Your task to perform on an android device: add a label to a message in the gmail app Image 0: 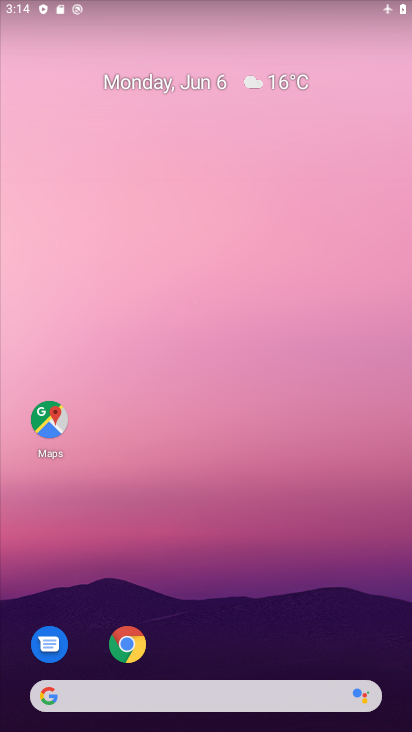
Step 0: drag from (234, 631) to (253, 250)
Your task to perform on an android device: add a label to a message in the gmail app Image 1: 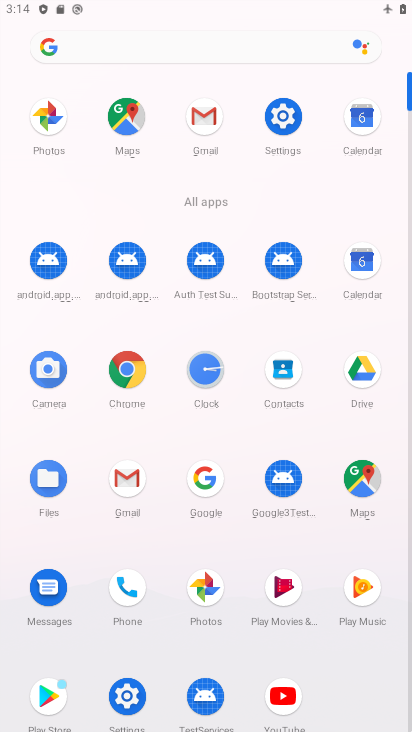
Step 1: click (130, 493)
Your task to perform on an android device: add a label to a message in the gmail app Image 2: 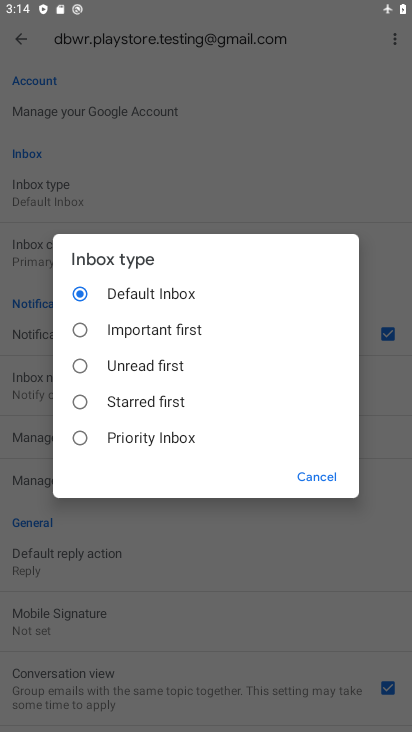
Step 2: click (256, 605)
Your task to perform on an android device: add a label to a message in the gmail app Image 3: 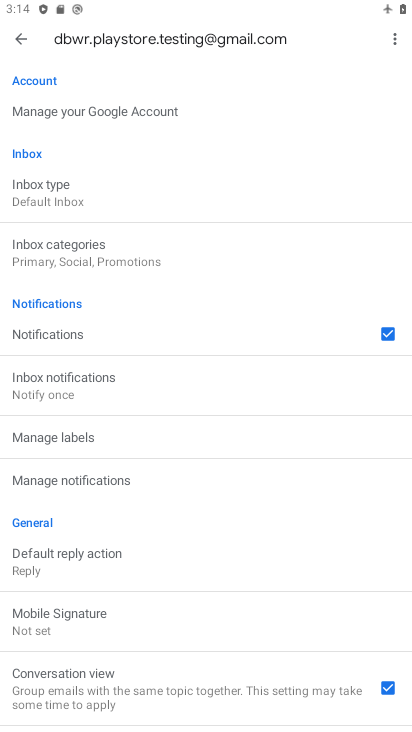
Step 3: click (21, 39)
Your task to perform on an android device: add a label to a message in the gmail app Image 4: 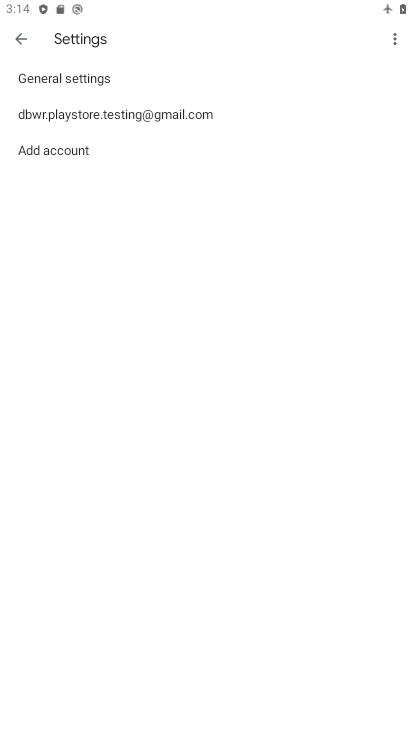
Step 4: click (21, 39)
Your task to perform on an android device: add a label to a message in the gmail app Image 5: 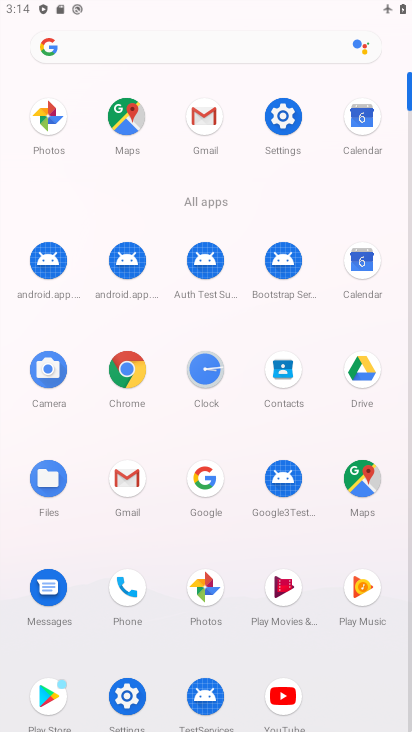
Step 5: click (136, 501)
Your task to perform on an android device: add a label to a message in the gmail app Image 6: 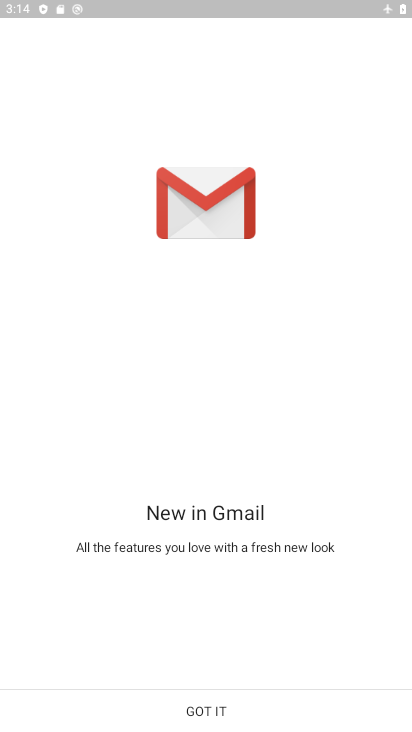
Step 6: click (223, 724)
Your task to perform on an android device: add a label to a message in the gmail app Image 7: 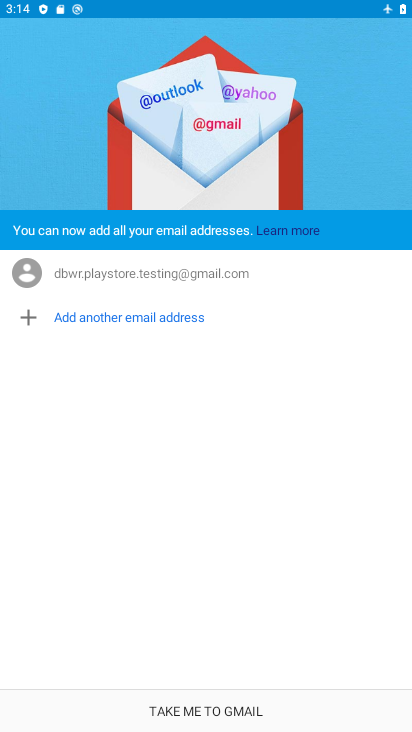
Step 7: click (216, 701)
Your task to perform on an android device: add a label to a message in the gmail app Image 8: 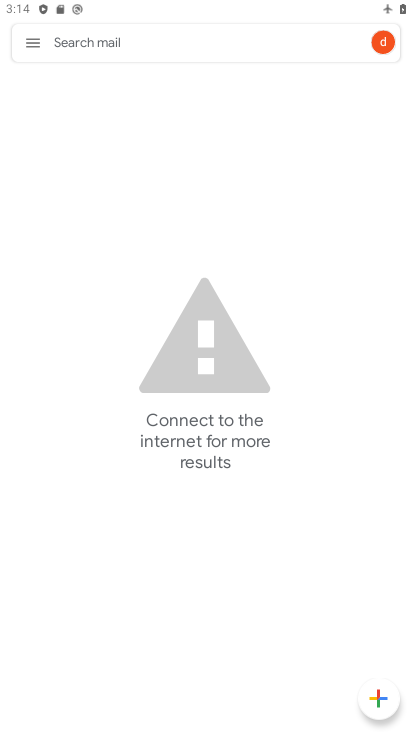
Step 8: task complete